Your task to perform on an android device: turn on bluetooth scan Image 0: 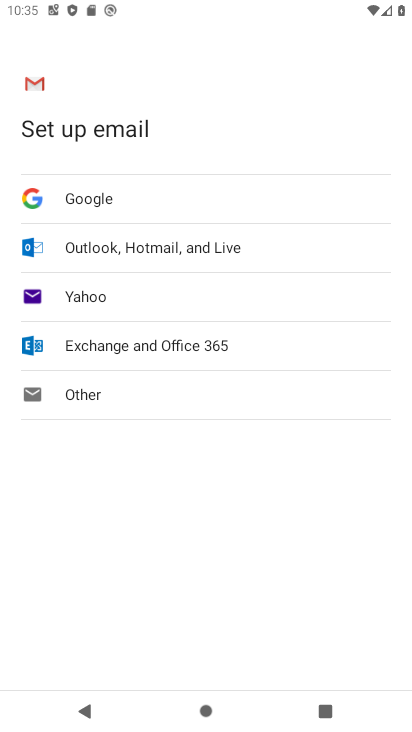
Step 0: press home button
Your task to perform on an android device: turn on bluetooth scan Image 1: 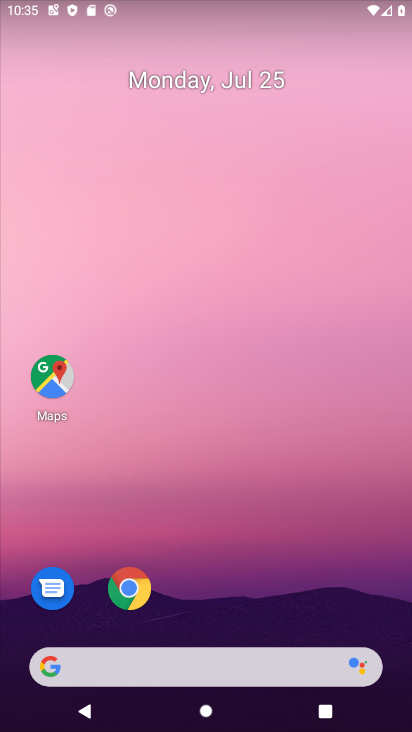
Step 1: drag from (348, 555) to (247, 9)
Your task to perform on an android device: turn on bluetooth scan Image 2: 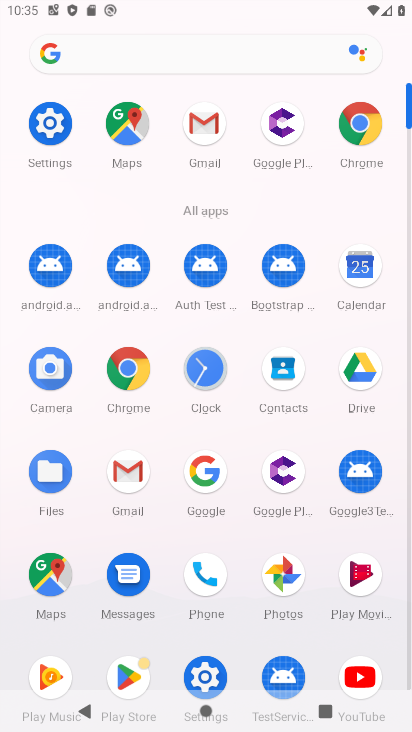
Step 2: drag from (321, 541) to (275, 282)
Your task to perform on an android device: turn on bluetooth scan Image 3: 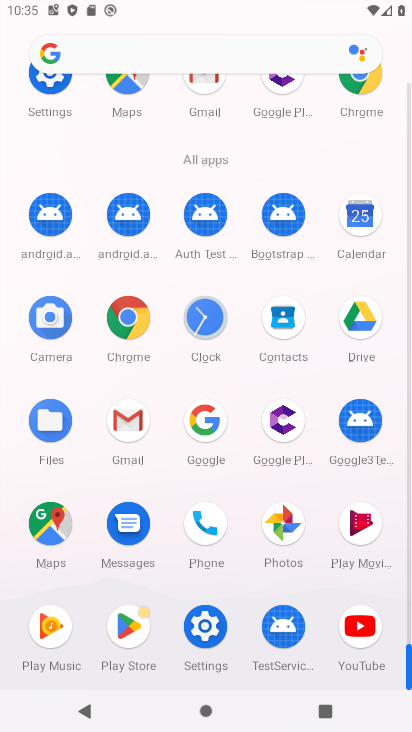
Step 3: click (224, 626)
Your task to perform on an android device: turn on bluetooth scan Image 4: 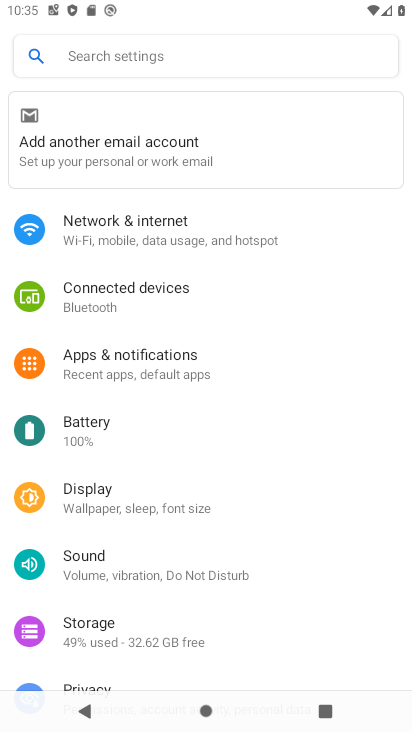
Step 4: drag from (199, 628) to (179, 405)
Your task to perform on an android device: turn on bluetooth scan Image 5: 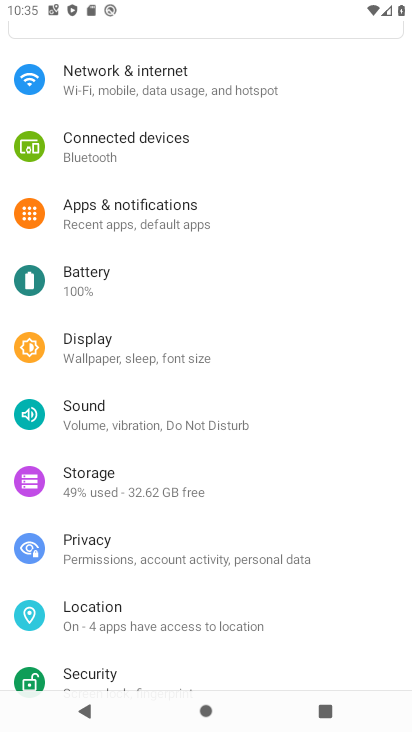
Step 5: click (103, 617)
Your task to perform on an android device: turn on bluetooth scan Image 6: 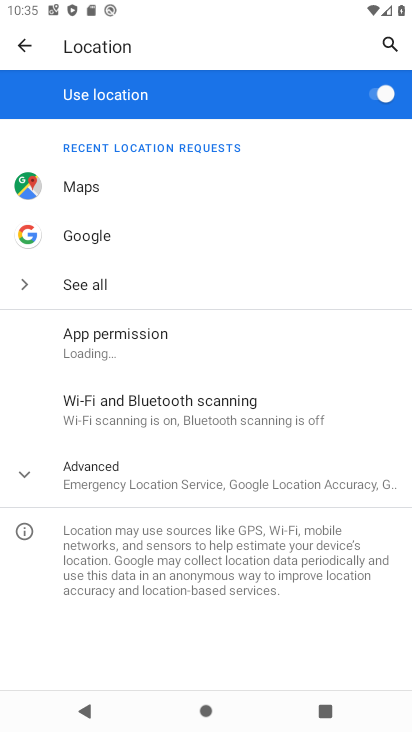
Step 6: click (119, 482)
Your task to perform on an android device: turn on bluetooth scan Image 7: 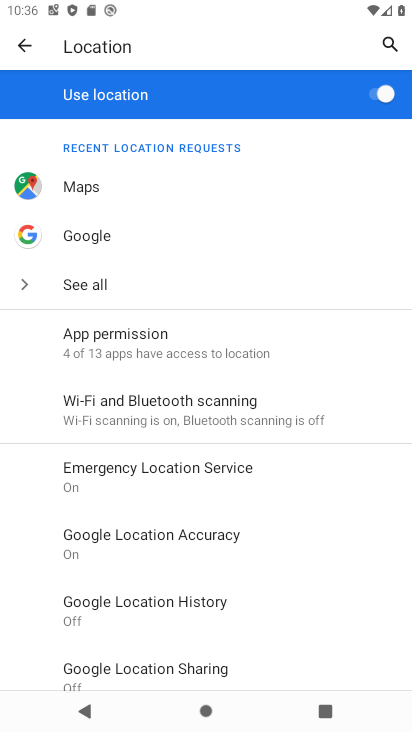
Step 7: click (205, 413)
Your task to perform on an android device: turn on bluetooth scan Image 8: 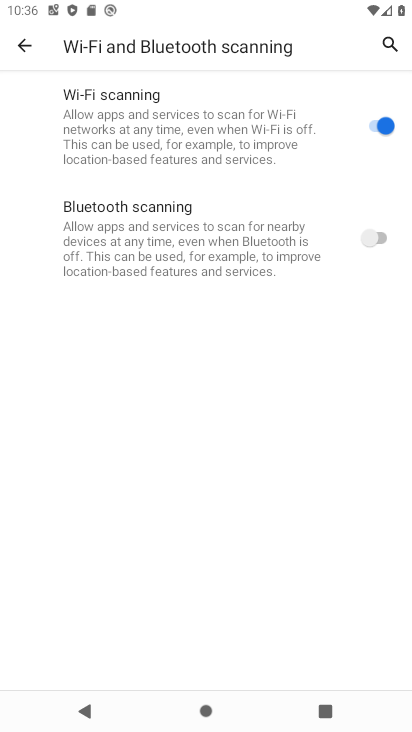
Step 8: click (372, 237)
Your task to perform on an android device: turn on bluetooth scan Image 9: 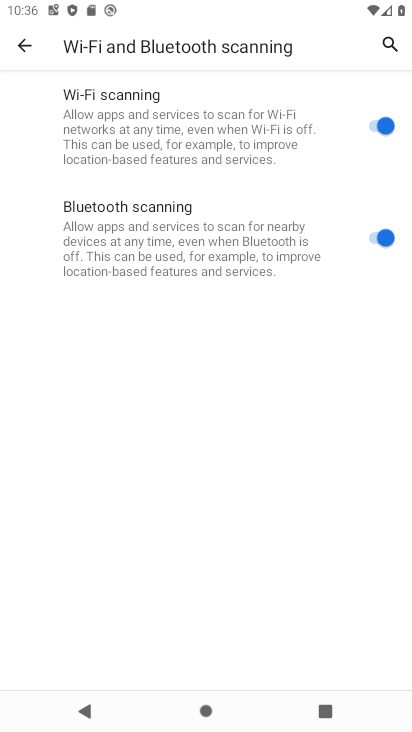
Step 9: task complete